Your task to perform on an android device: What's the weather going to be this weekend? Image 0: 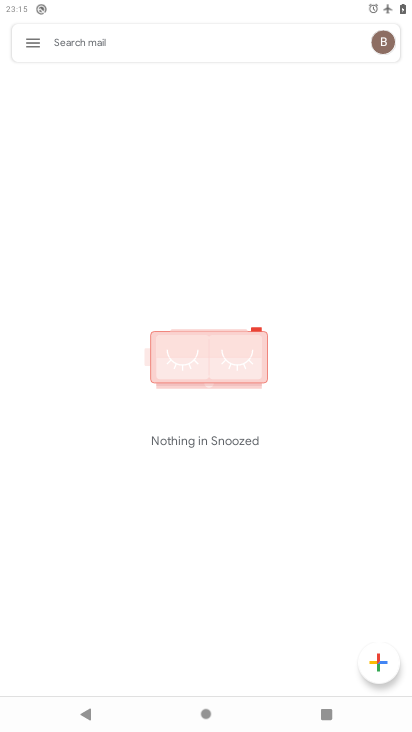
Step 0: press home button
Your task to perform on an android device: What's the weather going to be this weekend? Image 1: 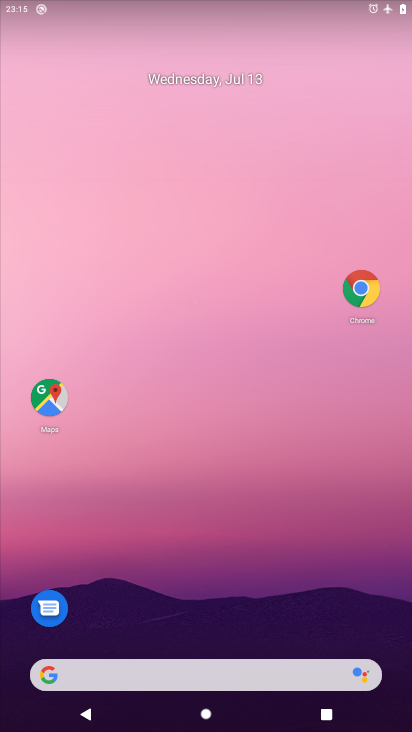
Step 1: click (98, 666)
Your task to perform on an android device: What's the weather going to be this weekend? Image 2: 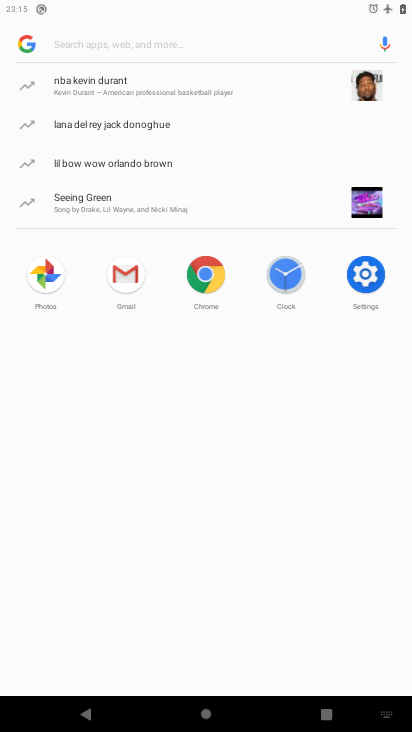
Step 2: type "What's the weather going to be this weekend?"
Your task to perform on an android device: What's the weather going to be this weekend? Image 3: 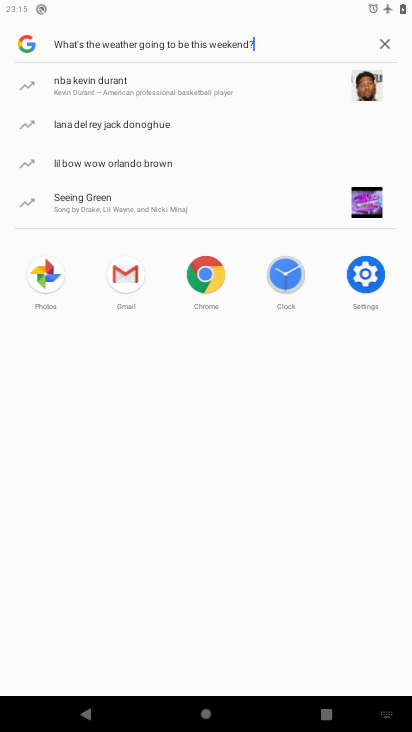
Step 3: type ""
Your task to perform on an android device: What's the weather going to be this weekend? Image 4: 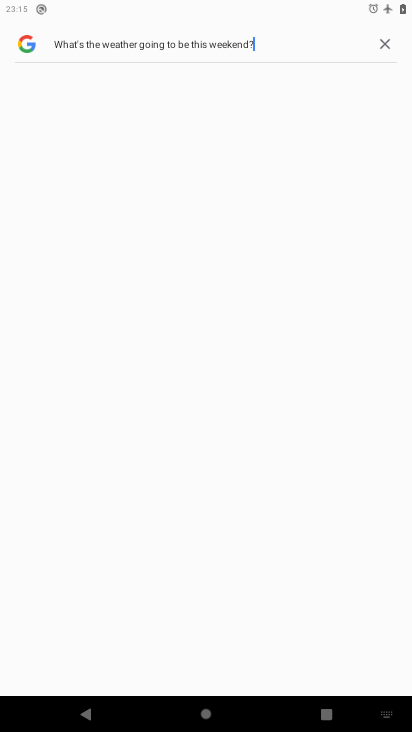
Step 4: type ""
Your task to perform on an android device: What's the weather going to be this weekend? Image 5: 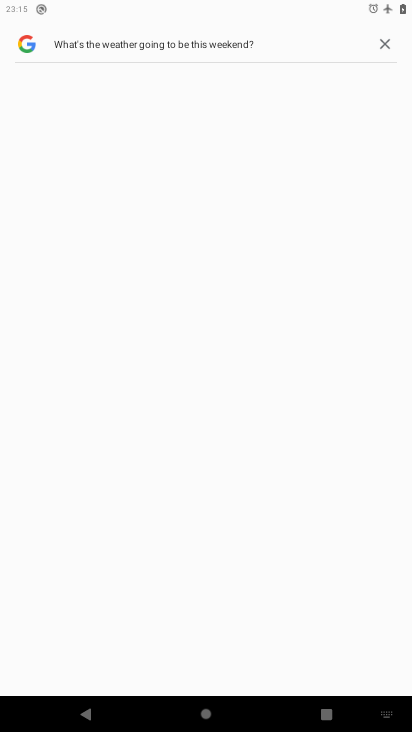
Step 5: type ""
Your task to perform on an android device: What's the weather going to be this weekend? Image 6: 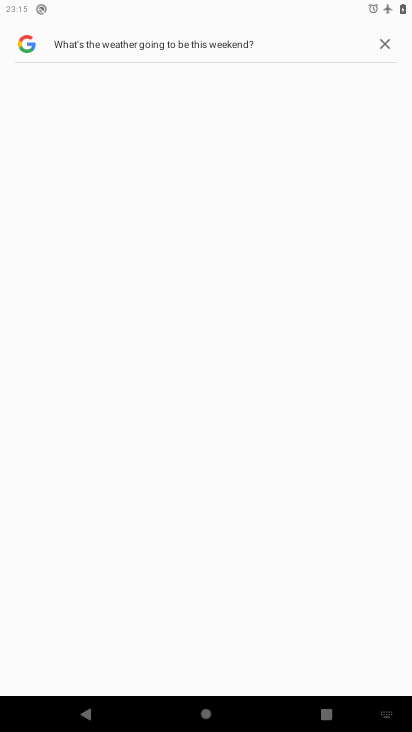
Step 6: task complete